Your task to perform on an android device: Do I have any events tomorrow? Image 0: 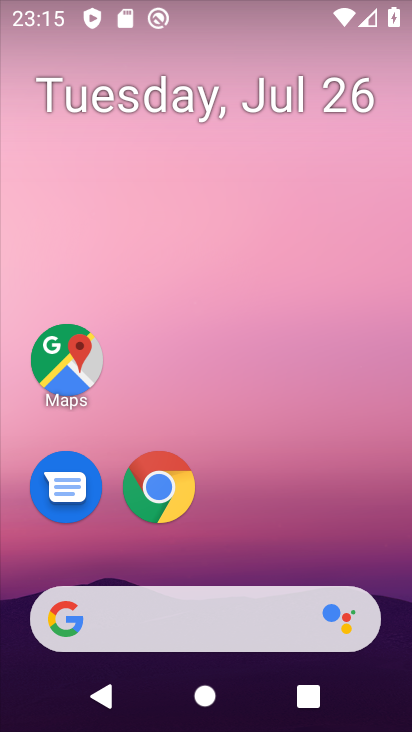
Step 0: drag from (269, 509) to (284, 43)
Your task to perform on an android device: Do I have any events tomorrow? Image 1: 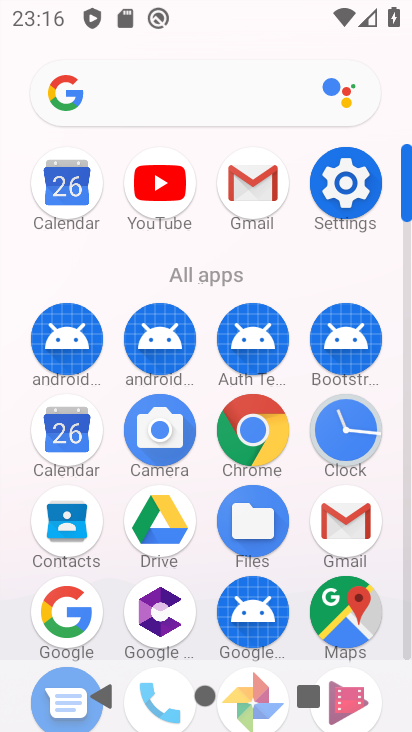
Step 1: click (63, 440)
Your task to perform on an android device: Do I have any events tomorrow? Image 2: 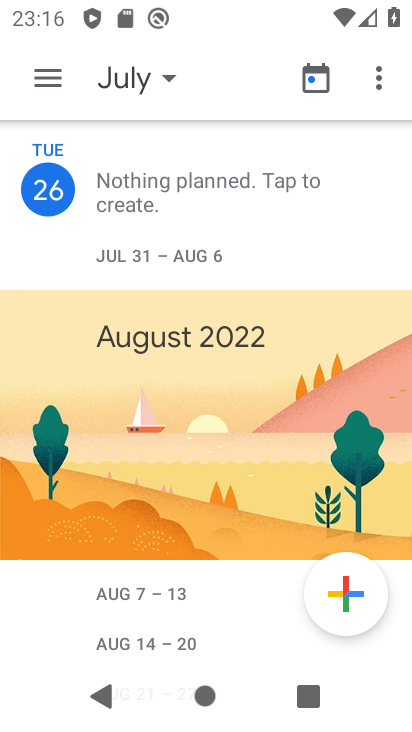
Step 2: click (153, 82)
Your task to perform on an android device: Do I have any events tomorrow? Image 3: 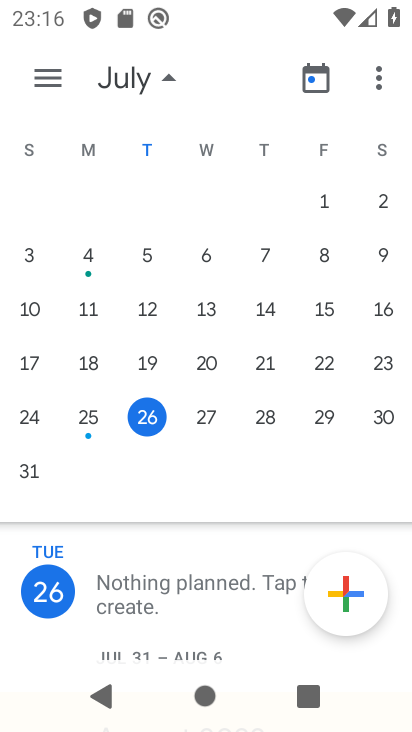
Step 3: click (198, 413)
Your task to perform on an android device: Do I have any events tomorrow? Image 4: 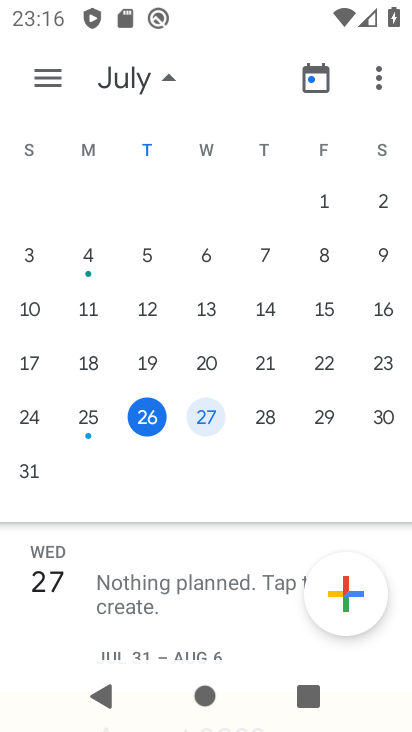
Step 4: task complete